Your task to perform on an android device: Open calendar and show me the second week of next month Image 0: 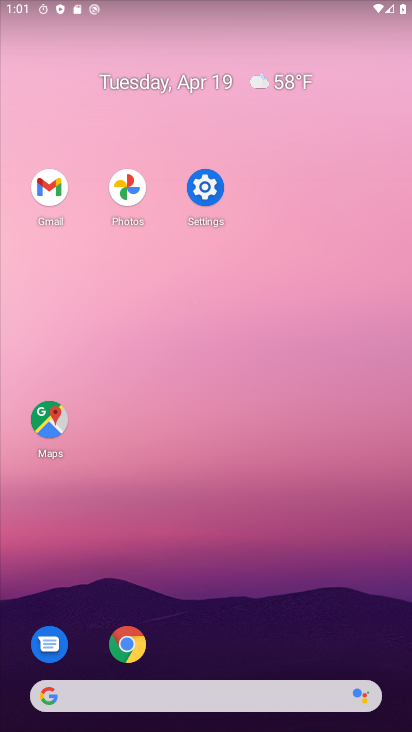
Step 0: drag from (253, 653) to (304, 176)
Your task to perform on an android device: Open calendar and show me the second week of next month Image 1: 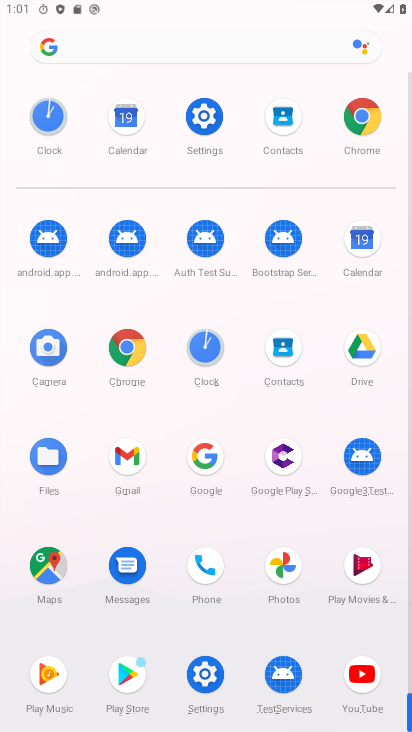
Step 1: drag from (124, 121) to (91, 204)
Your task to perform on an android device: Open calendar and show me the second week of next month Image 2: 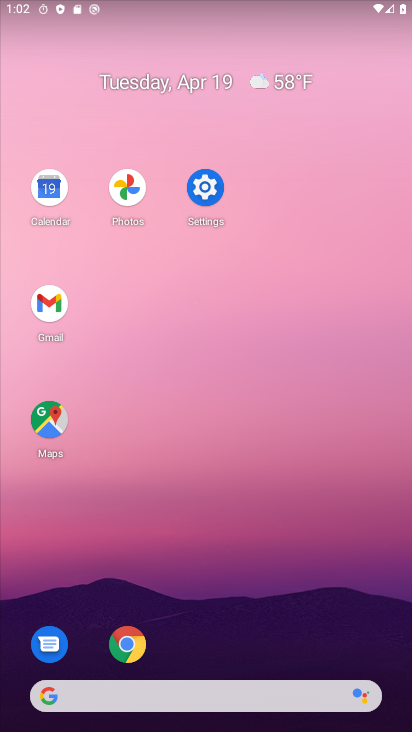
Step 2: click (47, 188)
Your task to perform on an android device: Open calendar and show me the second week of next month Image 3: 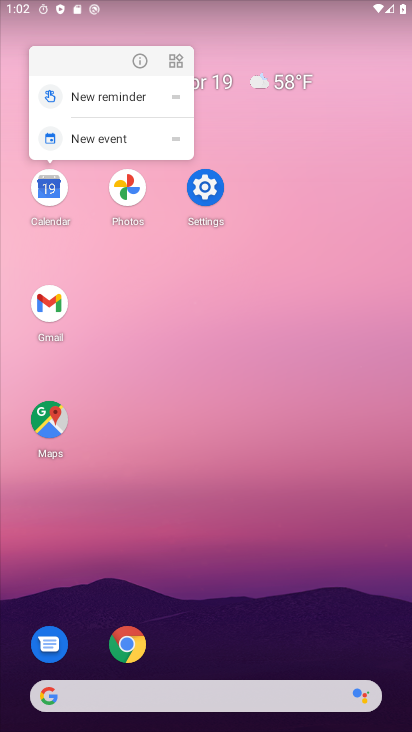
Step 3: click (45, 190)
Your task to perform on an android device: Open calendar and show me the second week of next month Image 4: 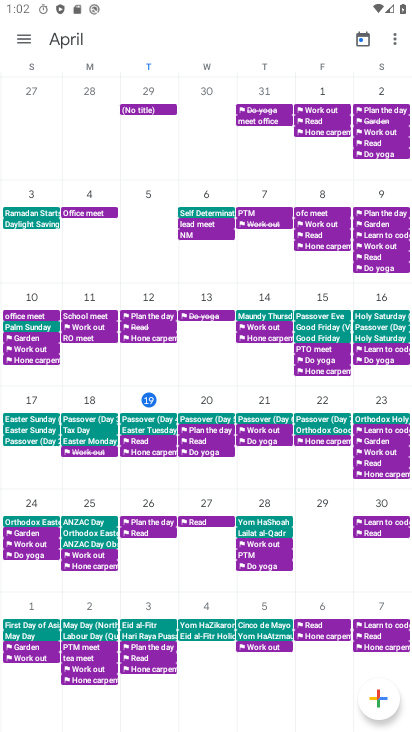
Step 4: click (25, 38)
Your task to perform on an android device: Open calendar and show me the second week of next month Image 5: 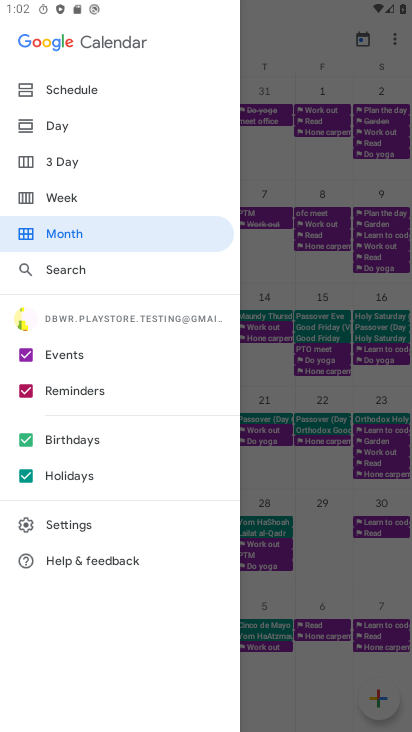
Step 5: click (74, 202)
Your task to perform on an android device: Open calendar and show me the second week of next month Image 6: 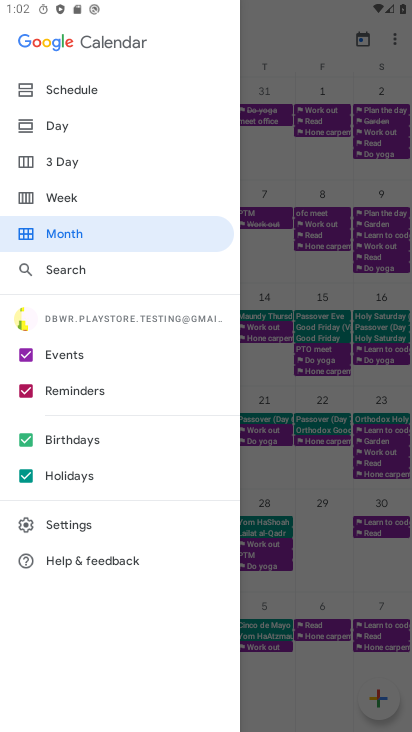
Step 6: click (114, 199)
Your task to perform on an android device: Open calendar and show me the second week of next month Image 7: 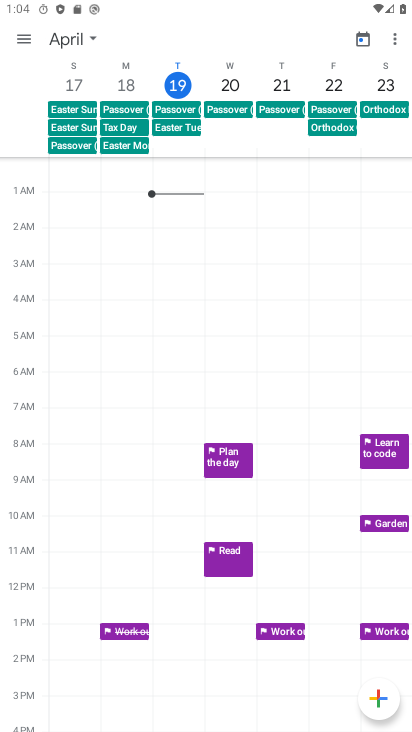
Step 7: click (78, 42)
Your task to perform on an android device: Open calendar and show me the second week of next month Image 8: 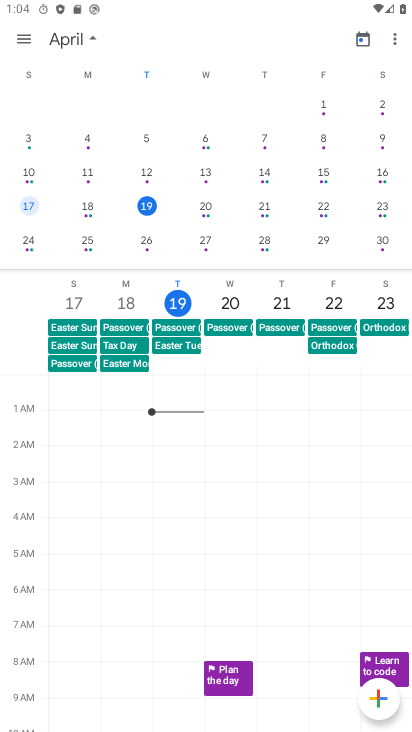
Step 8: drag from (379, 168) to (10, 135)
Your task to perform on an android device: Open calendar and show me the second week of next month Image 9: 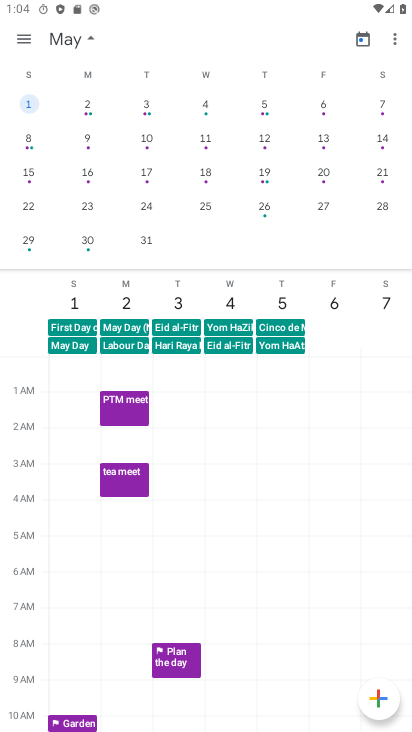
Step 9: click (21, 42)
Your task to perform on an android device: Open calendar and show me the second week of next month Image 10: 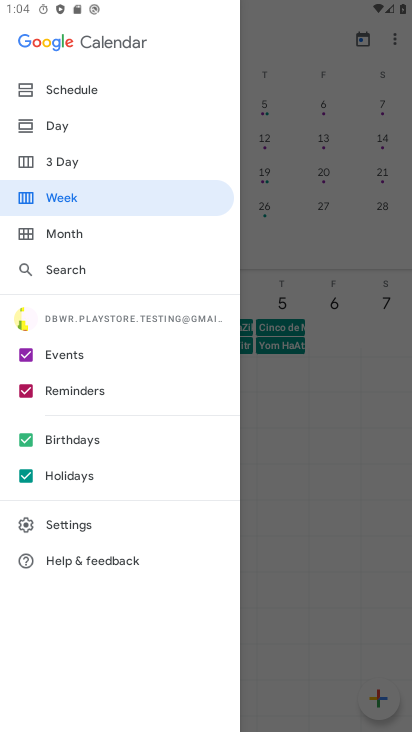
Step 10: click (73, 195)
Your task to perform on an android device: Open calendar and show me the second week of next month Image 11: 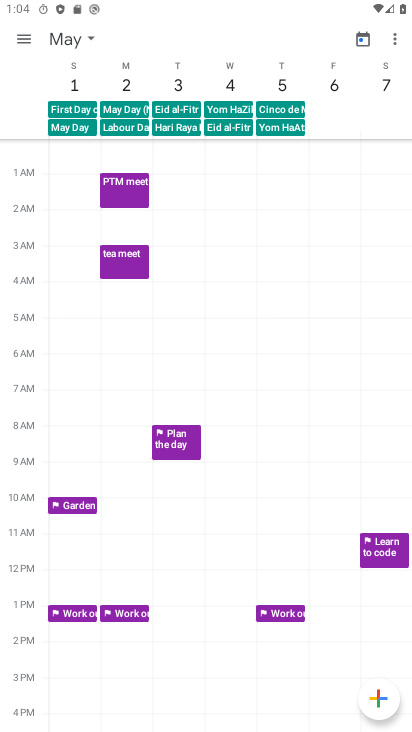
Step 11: task complete